Your task to perform on an android device: When is my next meeting? Image 0: 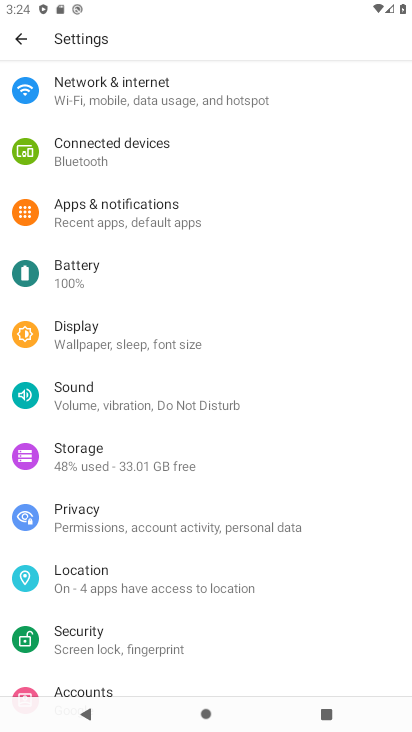
Step 0: press home button
Your task to perform on an android device: When is my next meeting? Image 1: 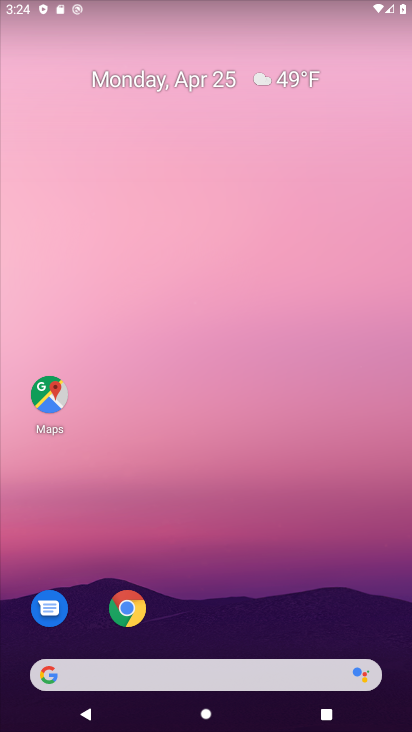
Step 1: drag from (171, 651) to (141, 153)
Your task to perform on an android device: When is my next meeting? Image 2: 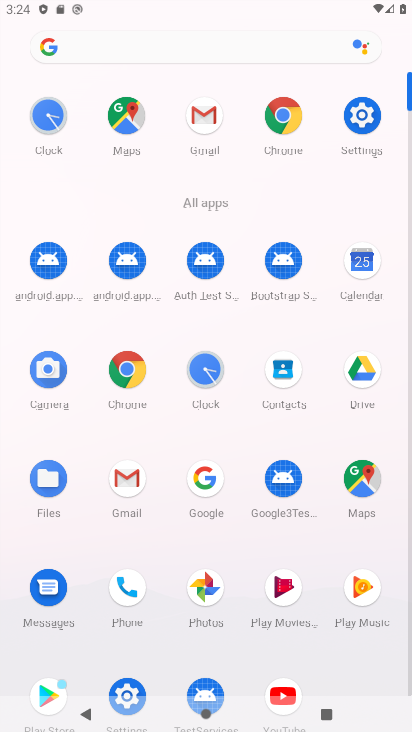
Step 2: drag from (188, 397) to (166, 159)
Your task to perform on an android device: When is my next meeting? Image 3: 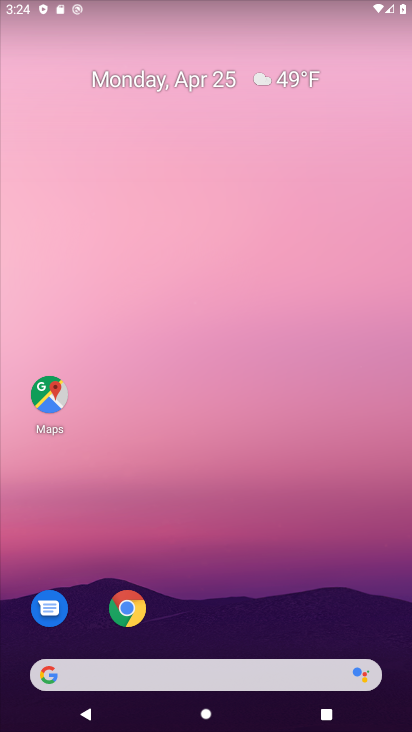
Step 3: drag from (209, 664) to (320, 26)
Your task to perform on an android device: When is my next meeting? Image 4: 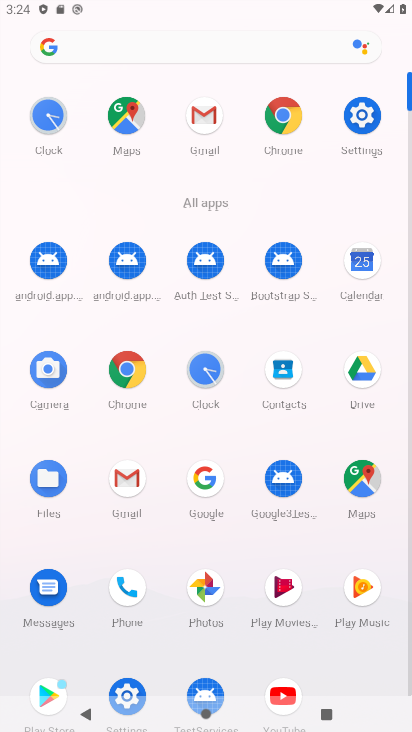
Step 4: click (372, 274)
Your task to perform on an android device: When is my next meeting? Image 5: 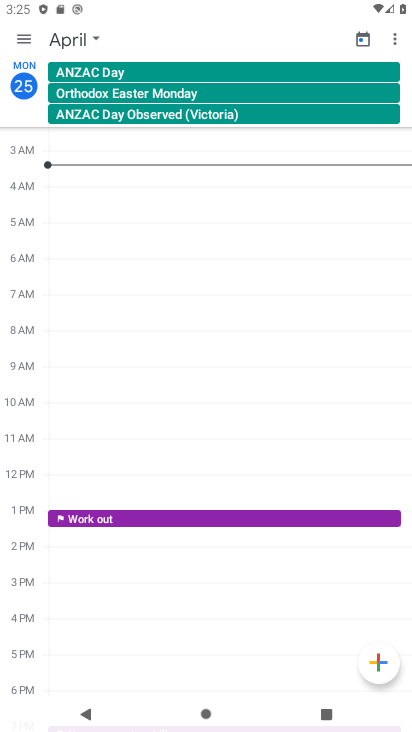
Step 5: task complete